Your task to perform on an android device: turn off data saver in the chrome app Image 0: 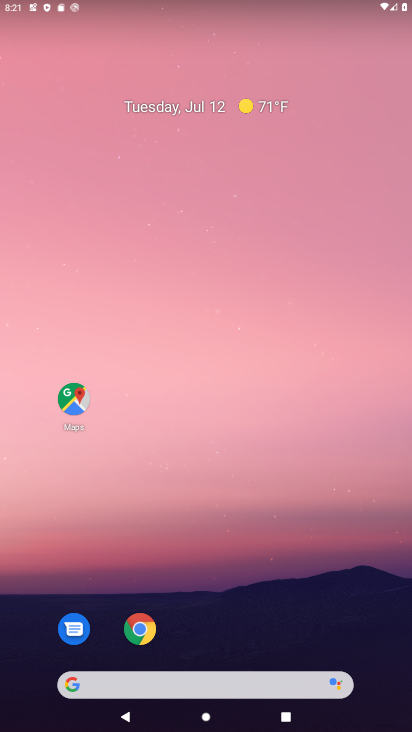
Step 0: click (136, 630)
Your task to perform on an android device: turn off data saver in the chrome app Image 1: 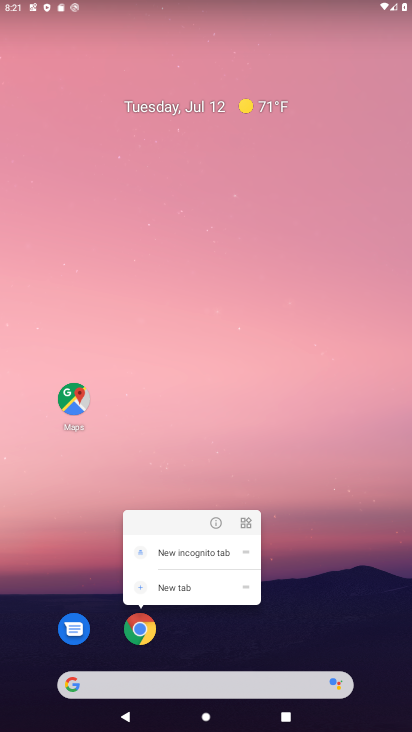
Step 1: click (145, 630)
Your task to perform on an android device: turn off data saver in the chrome app Image 2: 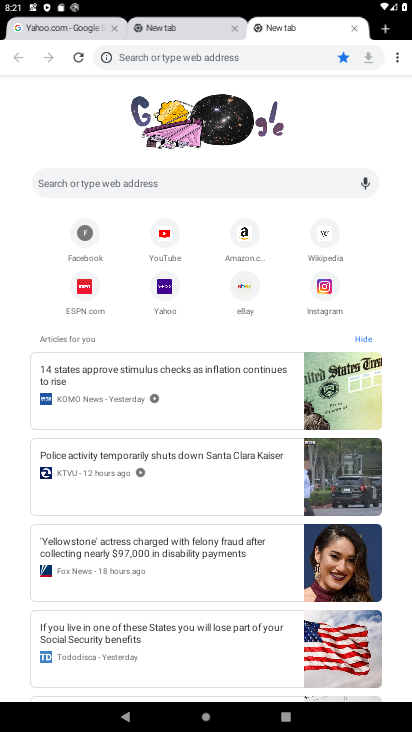
Step 2: click (399, 55)
Your task to perform on an android device: turn off data saver in the chrome app Image 3: 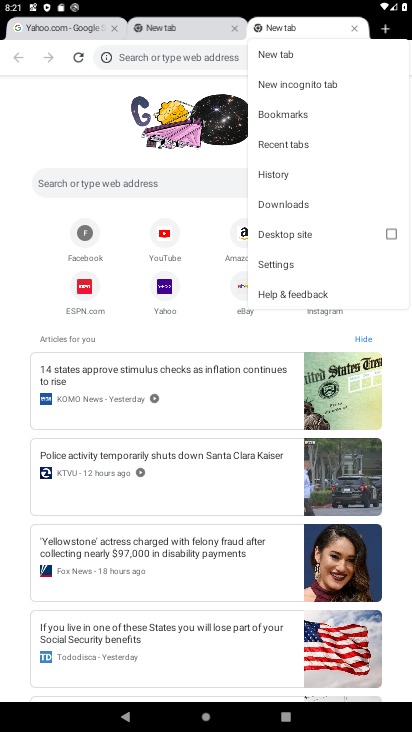
Step 3: click (286, 257)
Your task to perform on an android device: turn off data saver in the chrome app Image 4: 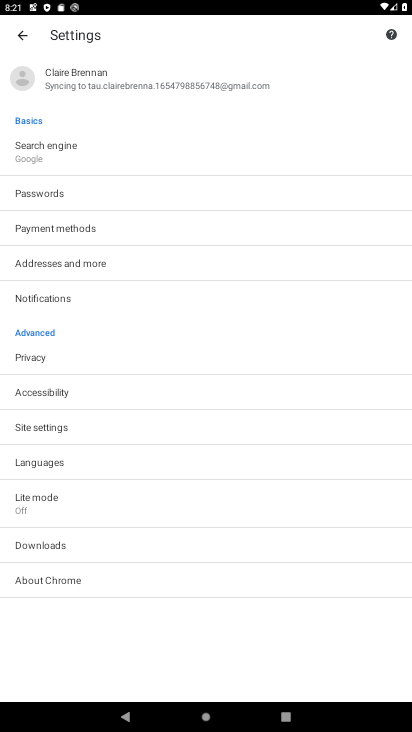
Step 4: click (34, 504)
Your task to perform on an android device: turn off data saver in the chrome app Image 5: 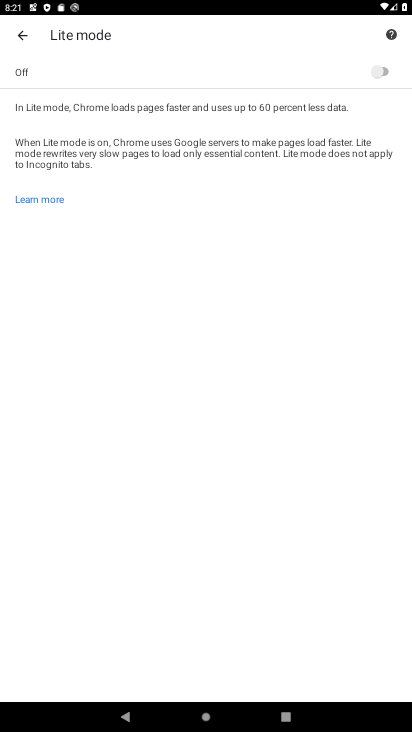
Step 5: click (383, 70)
Your task to perform on an android device: turn off data saver in the chrome app Image 6: 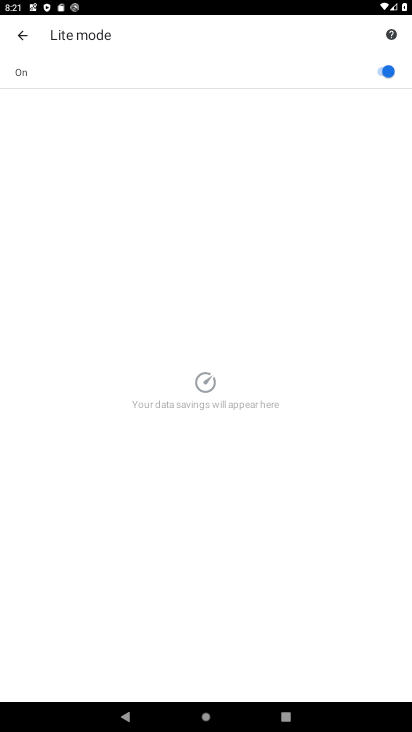
Step 6: click (379, 66)
Your task to perform on an android device: turn off data saver in the chrome app Image 7: 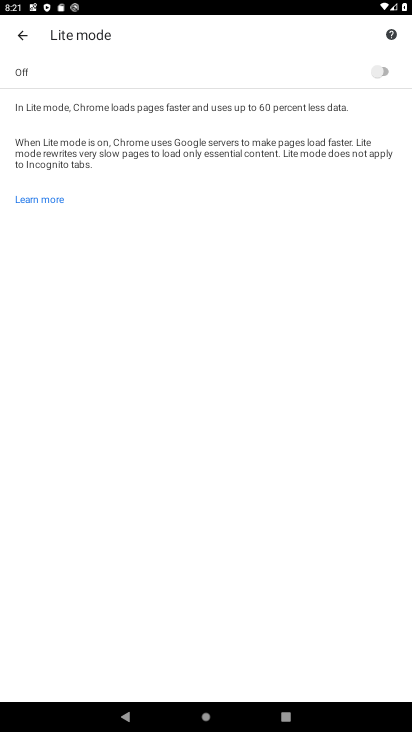
Step 7: task complete